Your task to perform on an android device: refresh tabs in the chrome app Image 0: 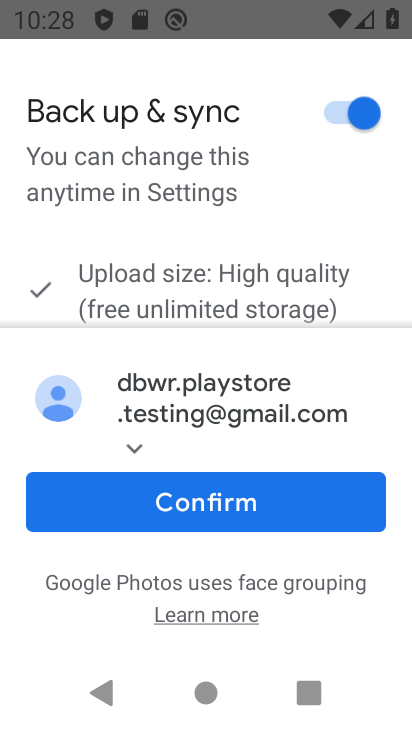
Step 0: press home button
Your task to perform on an android device: refresh tabs in the chrome app Image 1: 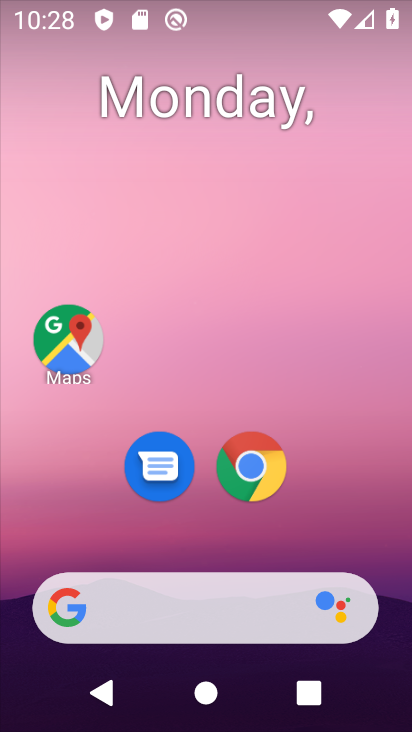
Step 1: click (262, 465)
Your task to perform on an android device: refresh tabs in the chrome app Image 2: 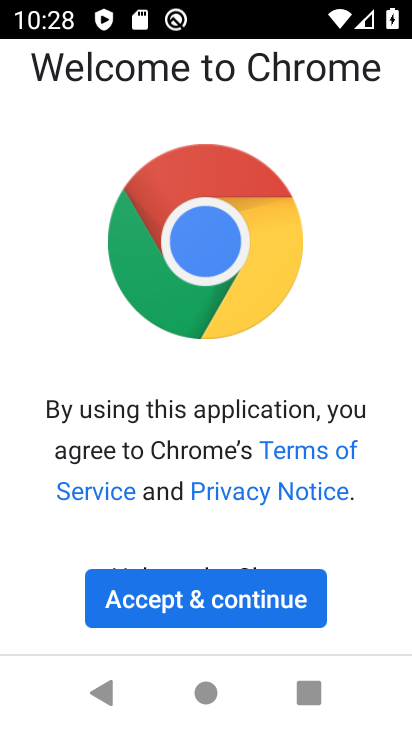
Step 2: click (219, 606)
Your task to perform on an android device: refresh tabs in the chrome app Image 3: 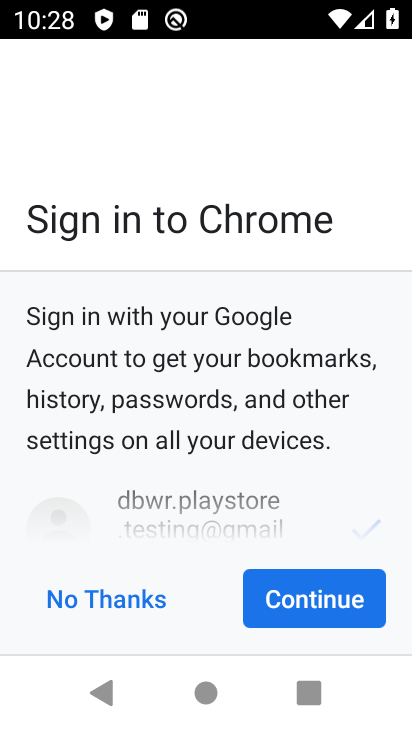
Step 3: click (322, 599)
Your task to perform on an android device: refresh tabs in the chrome app Image 4: 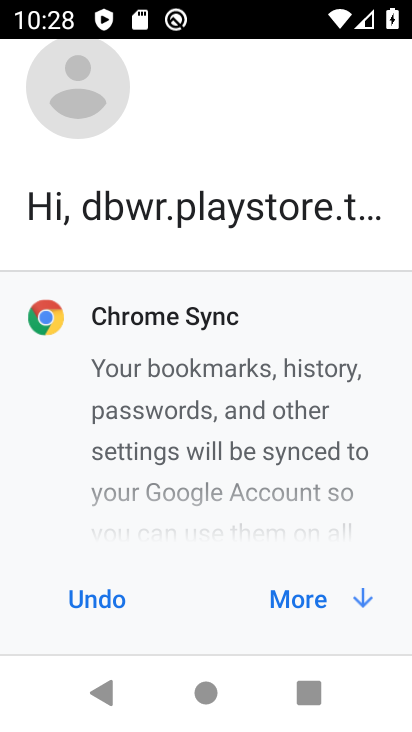
Step 4: click (360, 601)
Your task to perform on an android device: refresh tabs in the chrome app Image 5: 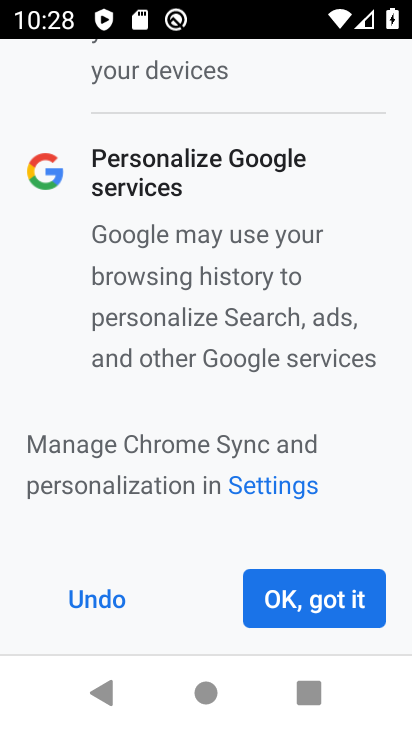
Step 5: click (322, 597)
Your task to perform on an android device: refresh tabs in the chrome app Image 6: 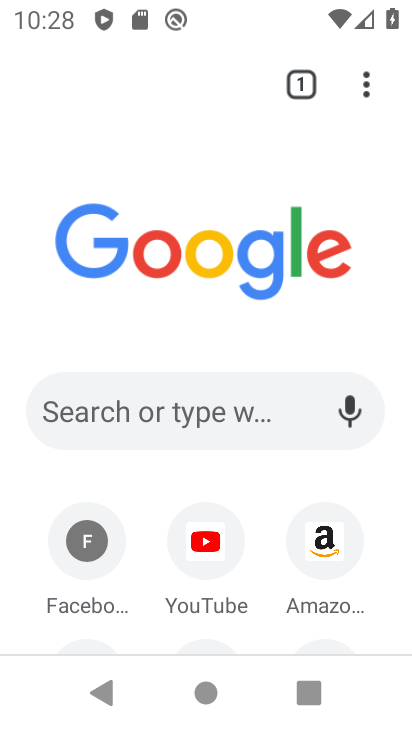
Step 6: click (365, 86)
Your task to perform on an android device: refresh tabs in the chrome app Image 7: 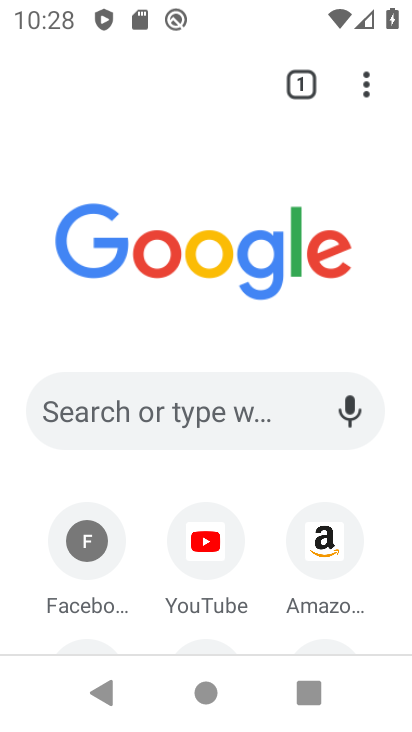
Step 7: click (381, 85)
Your task to perform on an android device: refresh tabs in the chrome app Image 8: 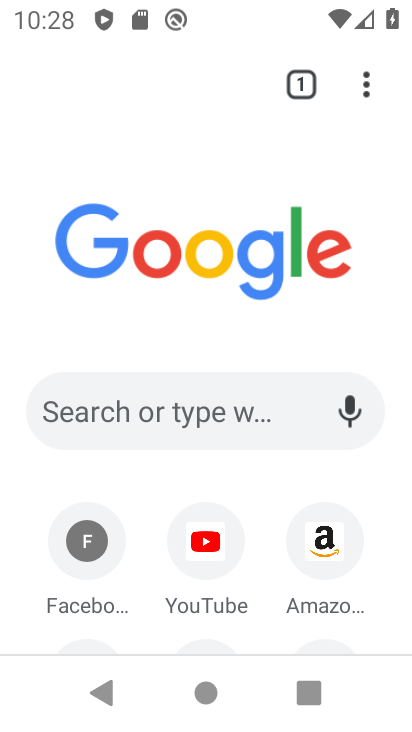
Step 8: click (381, 85)
Your task to perform on an android device: refresh tabs in the chrome app Image 9: 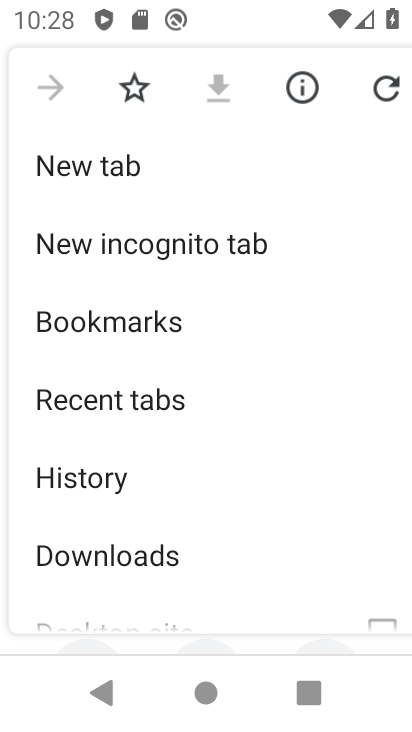
Step 9: task complete